Your task to perform on an android device: check out phone information Image 0: 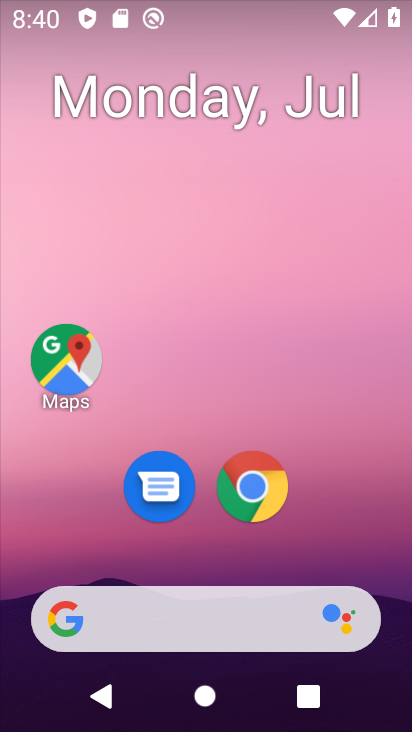
Step 0: drag from (83, 539) to (212, 29)
Your task to perform on an android device: check out phone information Image 1: 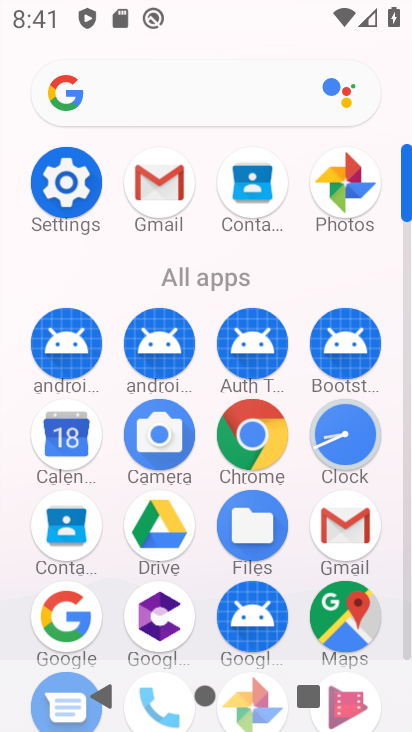
Step 1: click (72, 173)
Your task to perform on an android device: check out phone information Image 2: 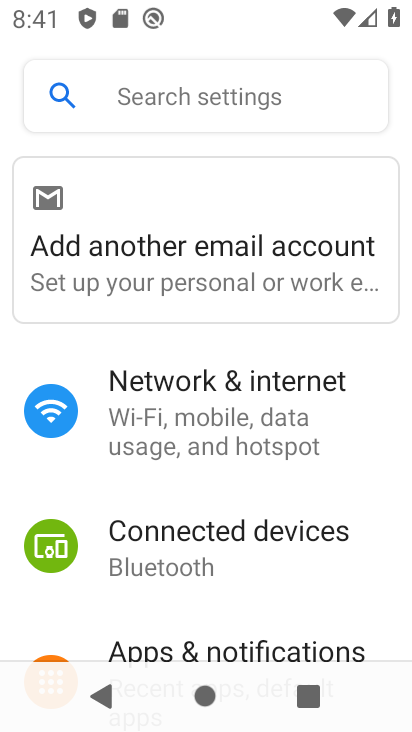
Step 2: drag from (167, 598) to (240, 38)
Your task to perform on an android device: check out phone information Image 3: 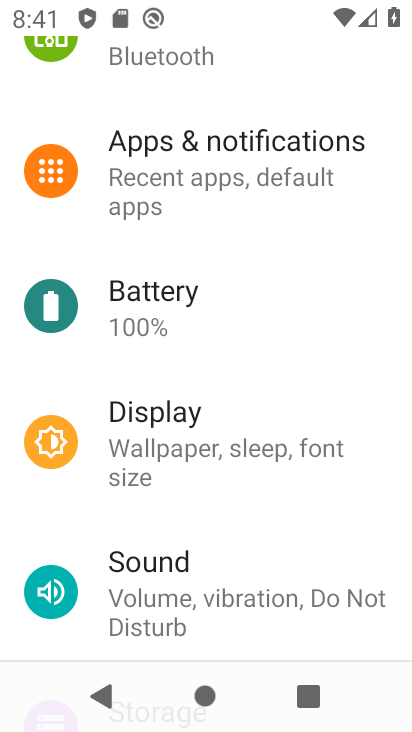
Step 3: drag from (152, 643) to (241, 17)
Your task to perform on an android device: check out phone information Image 4: 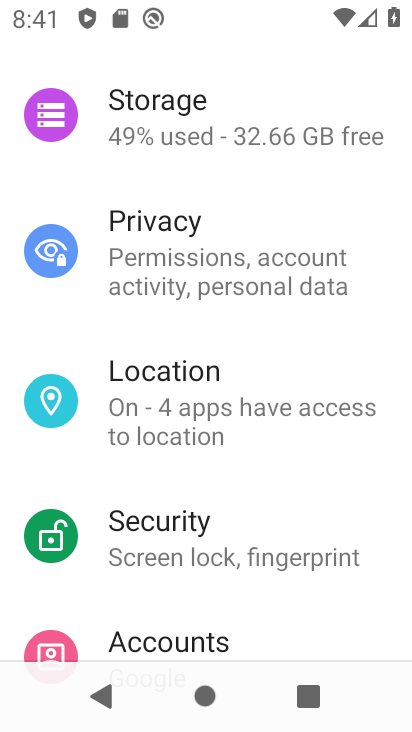
Step 4: drag from (218, 332) to (255, 37)
Your task to perform on an android device: check out phone information Image 5: 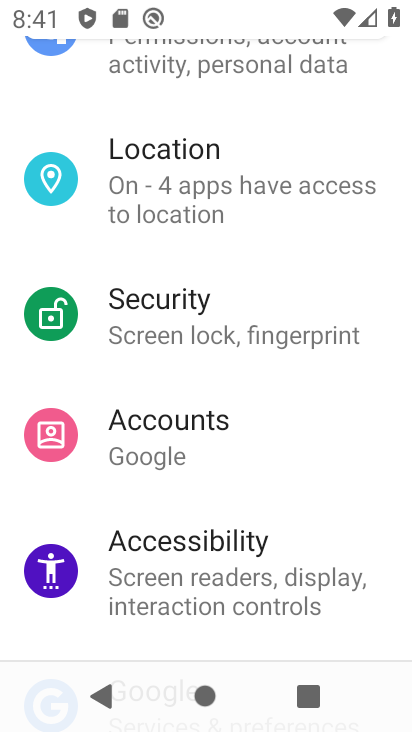
Step 5: drag from (128, 624) to (263, 12)
Your task to perform on an android device: check out phone information Image 6: 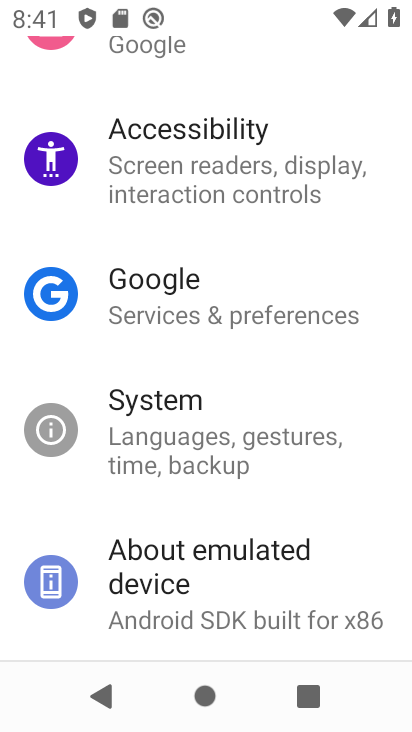
Step 6: drag from (187, 581) to (256, 4)
Your task to perform on an android device: check out phone information Image 7: 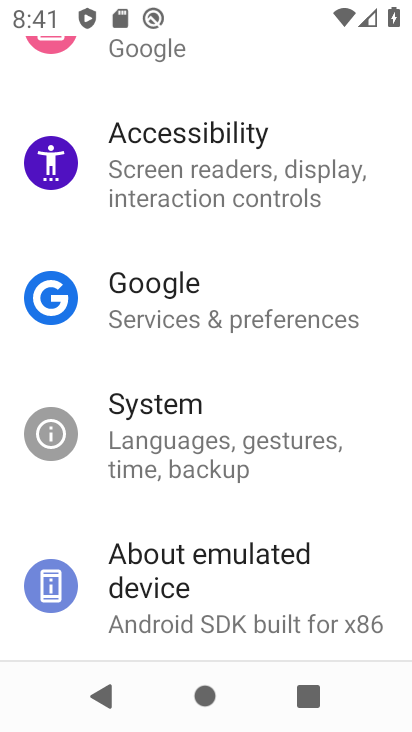
Step 7: click (190, 573)
Your task to perform on an android device: check out phone information Image 8: 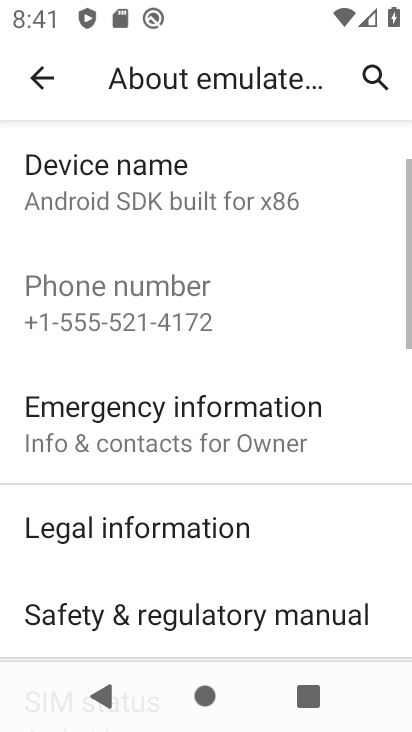
Step 8: task complete